Your task to perform on an android device: toggle javascript in the chrome app Image 0: 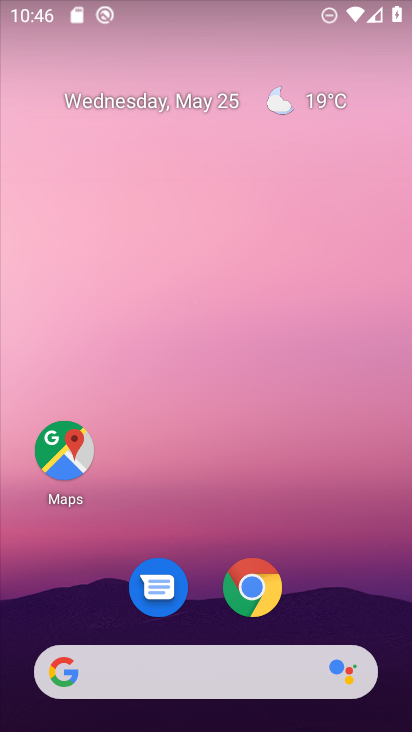
Step 0: click (249, 585)
Your task to perform on an android device: toggle javascript in the chrome app Image 1: 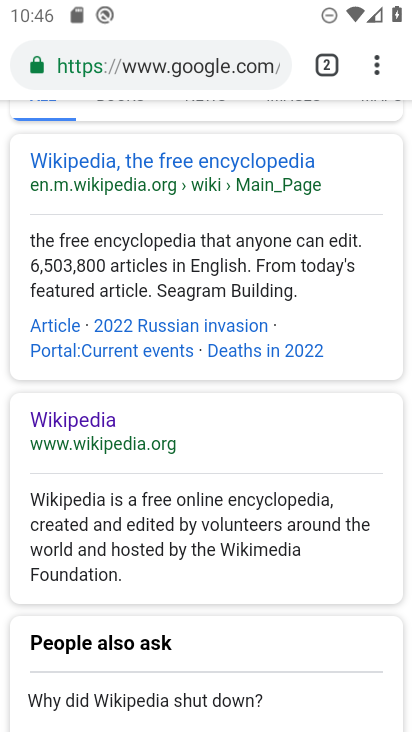
Step 1: click (375, 69)
Your task to perform on an android device: toggle javascript in the chrome app Image 2: 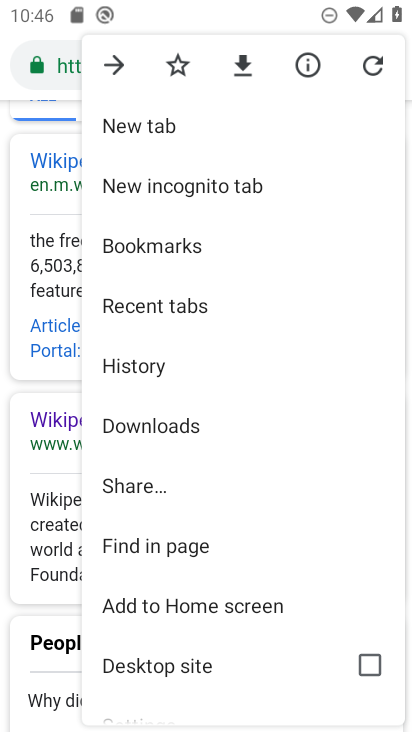
Step 2: drag from (280, 651) to (283, 228)
Your task to perform on an android device: toggle javascript in the chrome app Image 3: 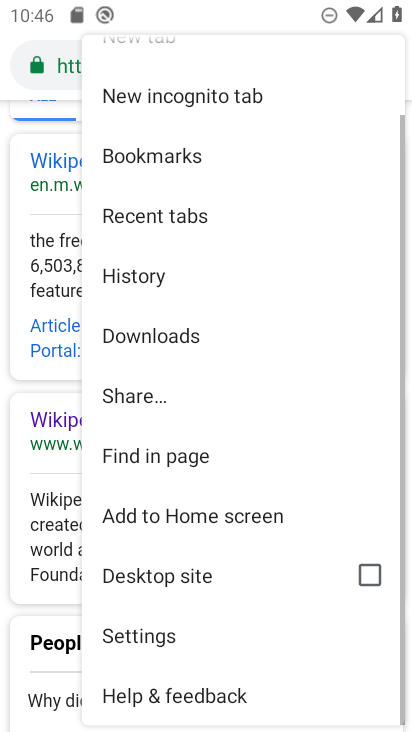
Step 3: click (126, 646)
Your task to perform on an android device: toggle javascript in the chrome app Image 4: 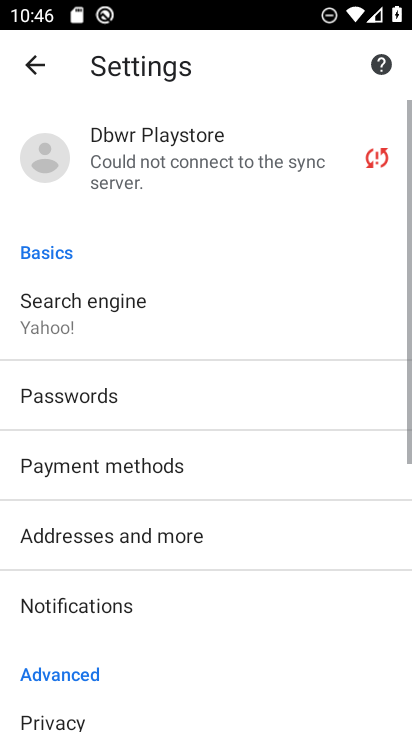
Step 4: drag from (227, 549) to (255, 223)
Your task to perform on an android device: toggle javascript in the chrome app Image 5: 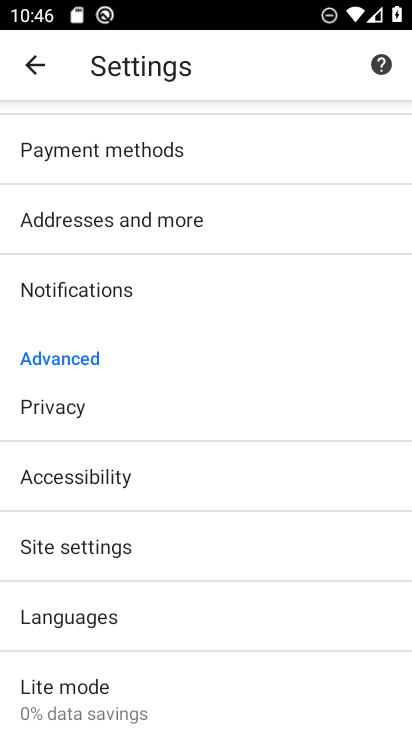
Step 5: click (75, 558)
Your task to perform on an android device: toggle javascript in the chrome app Image 6: 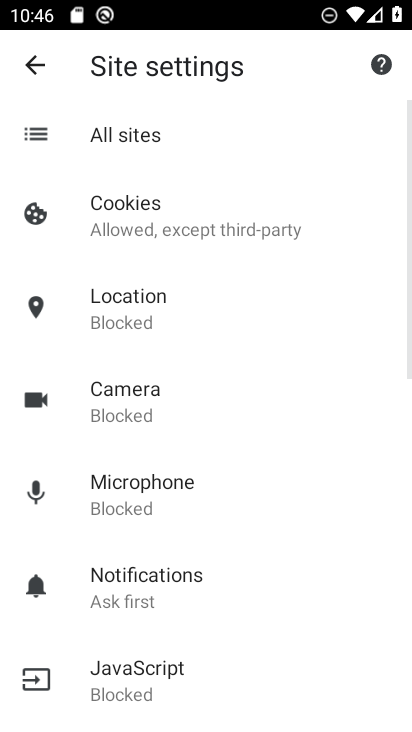
Step 6: click (173, 677)
Your task to perform on an android device: toggle javascript in the chrome app Image 7: 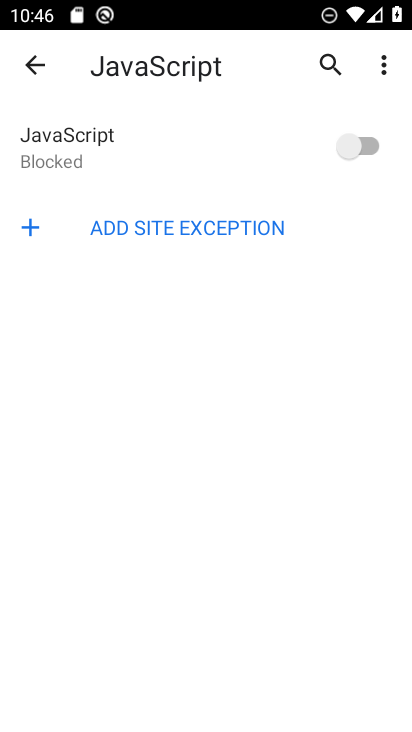
Step 7: click (374, 150)
Your task to perform on an android device: toggle javascript in the chrome app Image 8: 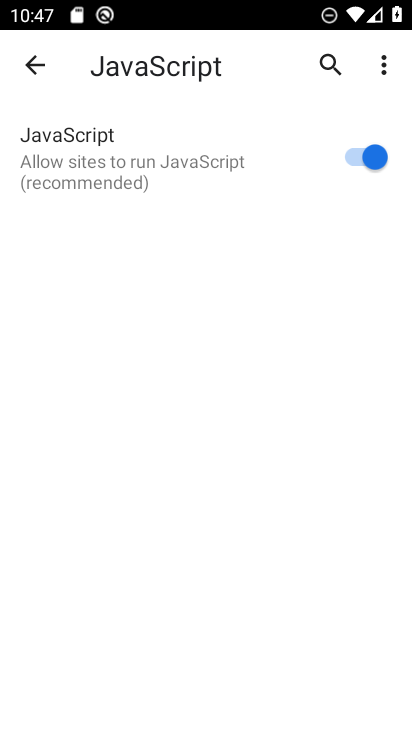
Step 8: task complete